Your task to perform on an android device: turn off improve location accuracy Image 0: 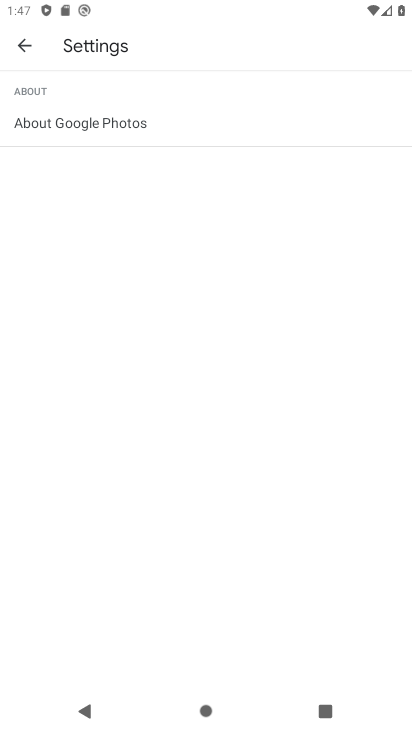
Step 0: press home button
Your task to perform on an android device: turn off improve location accuracy Image 1: 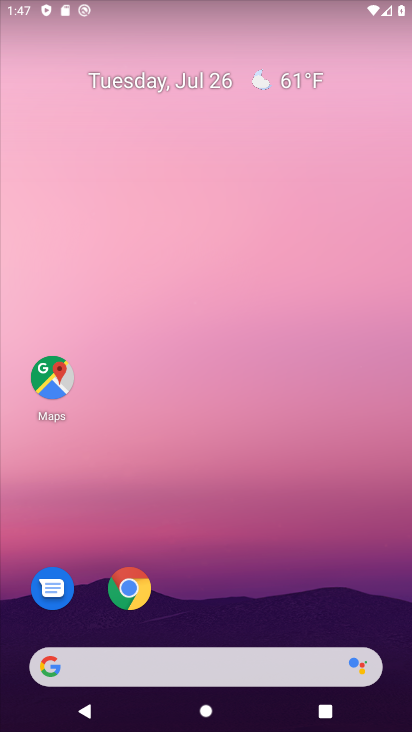
Step 1: drag from (168, 569) to (306, 1)
Your task to perform on an android device: turn off improve location accuracy Image 2: 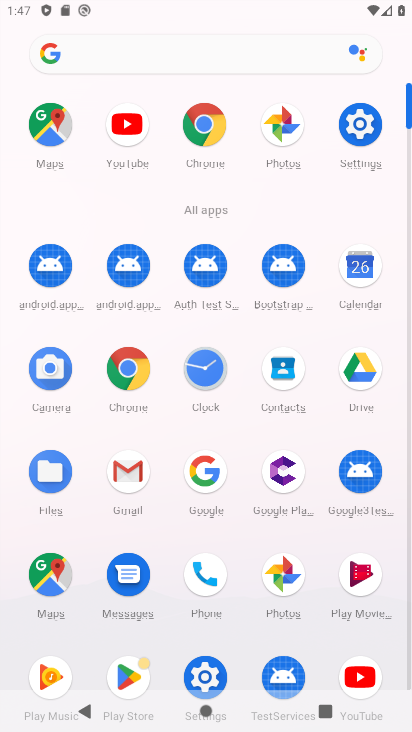
Step 2: click (363, 140)
Your task to perform on an android device: turn off improve location accuracy Image 3: 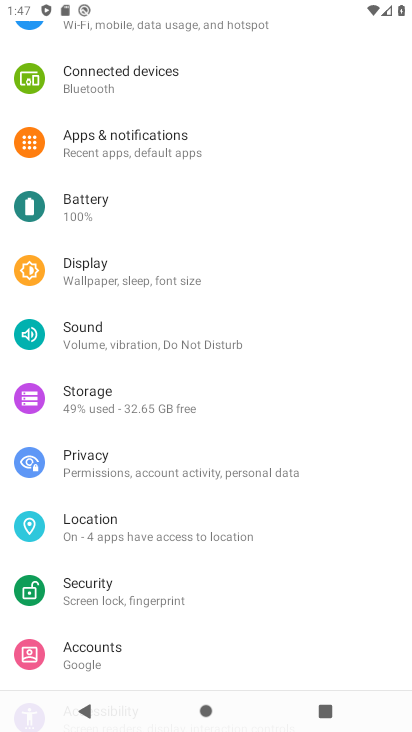
Step 3: click (91, 532)
Your task to perform on an android device: turn off improve location accuracy Image 4: 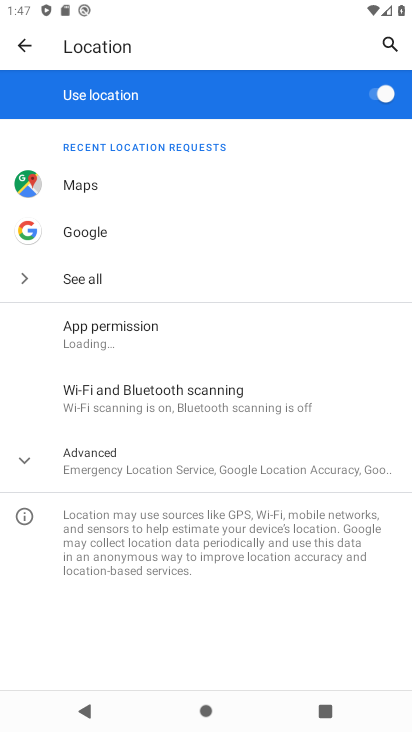
Step 4: click (84, 452)
Your task to perform on an android device: turn off improve location accuracy Image 5: 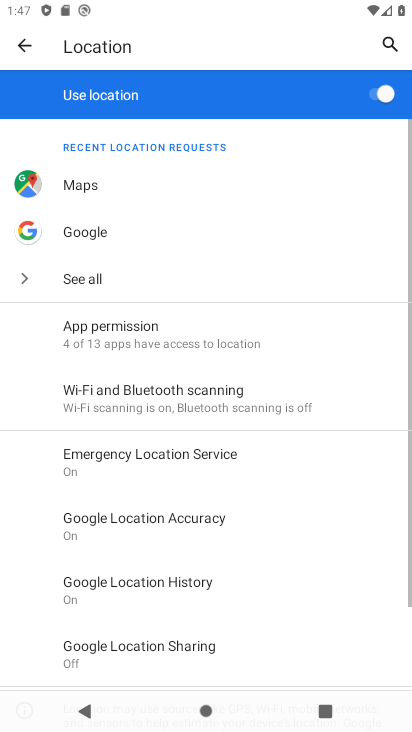
Step 5: drag from (93, 440) to (140, 93)
Your task to perform on an android device: turn off improve location accuracy Image 6: 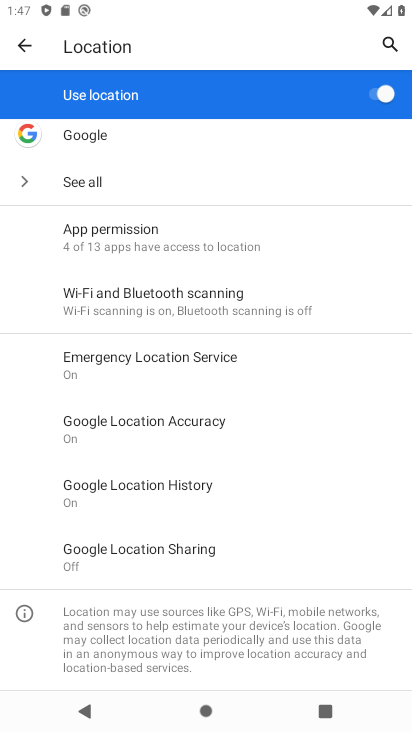
Step 6: click (203, 428)
Your task to perform on an android device: turn off improve location accuracy Image 7: 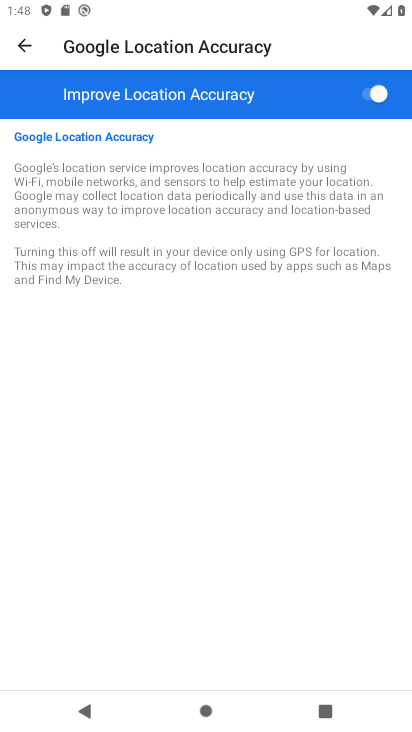
Step 7: click (379, 93)
Your task to perform on an android device: turn off improve location accuracy Image 8: 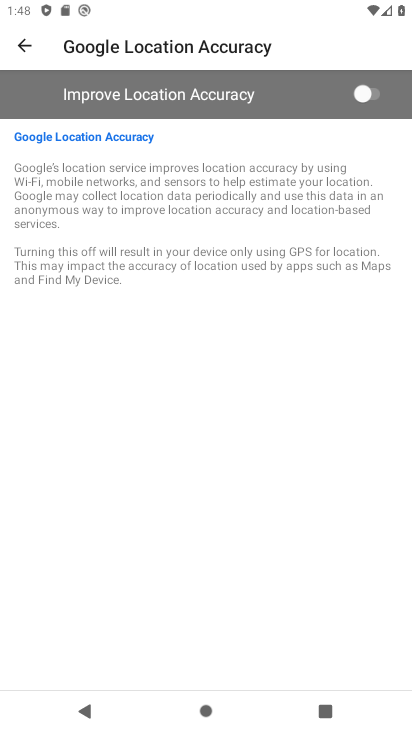
Step 8: task complete